Your task to perform on an android device: change the clock display to analog Image 0: 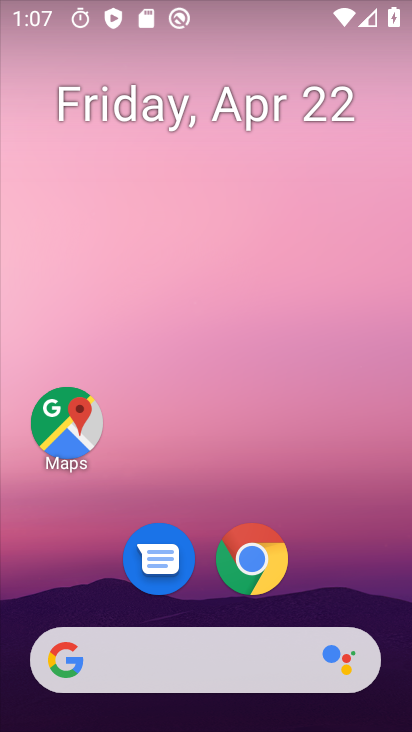
Step 0: drag from (357, 566) to (336, 267)
Your task to perform on an android device: change the clock display to analog Image 1: 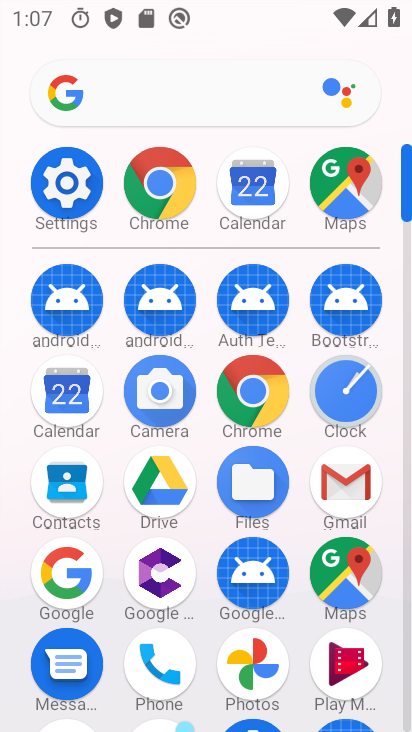
Step 1: click (356, 395)
Your task to perform on an android device: change the clock display to analog Image 2: 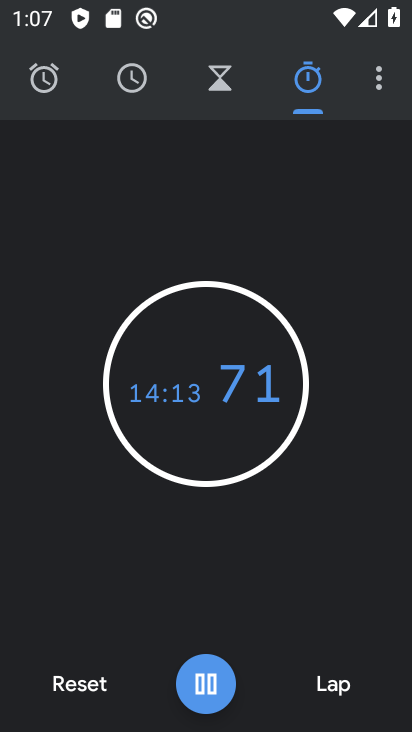
Step 2: click (385, 76)
Your task to perform on an android device: change the clock display to analog Image 3: 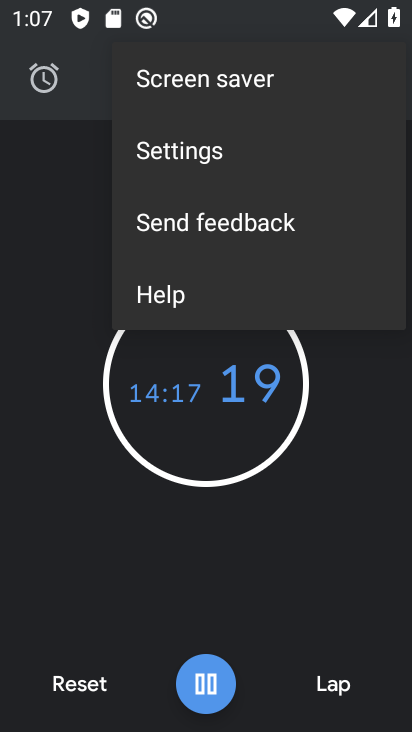
Step 3: click (231, 162)
Your task to perform on an android device: change the clock display to analog Image 4: 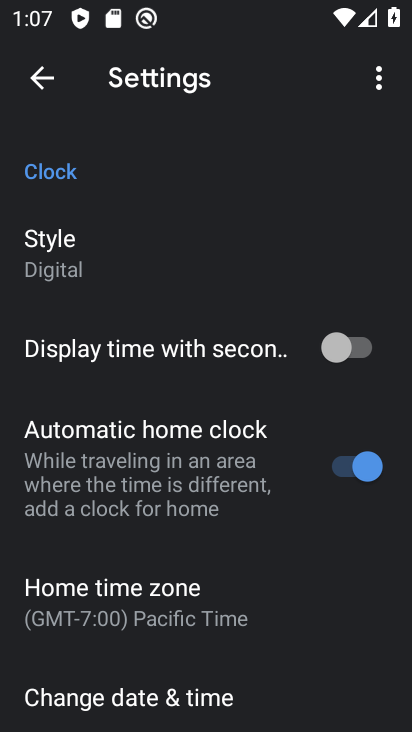
Step 4: drag from (289, 573) to (289, 399)
Your task to perform on an android device: change the clock display to analog Image 5: 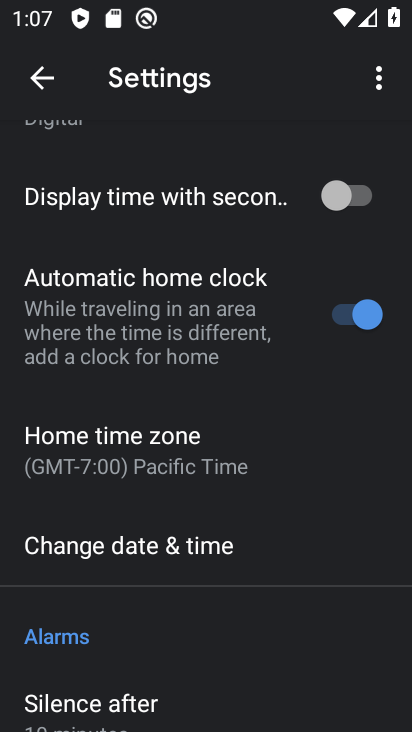
Step 5: drag from (308, 617) to (303, 436)
Your task to perform on an android device: change the clock display to analog Image 6: 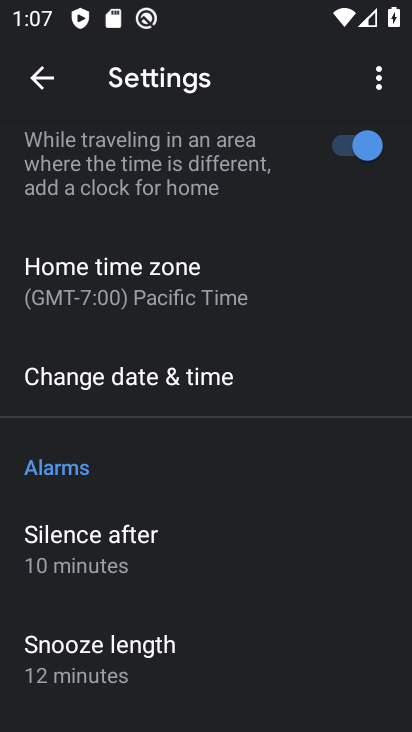
Step 6: drag from (304, 624) to (300, 475)
Your task to perform on an android device: change the clock display to analog Image 7: 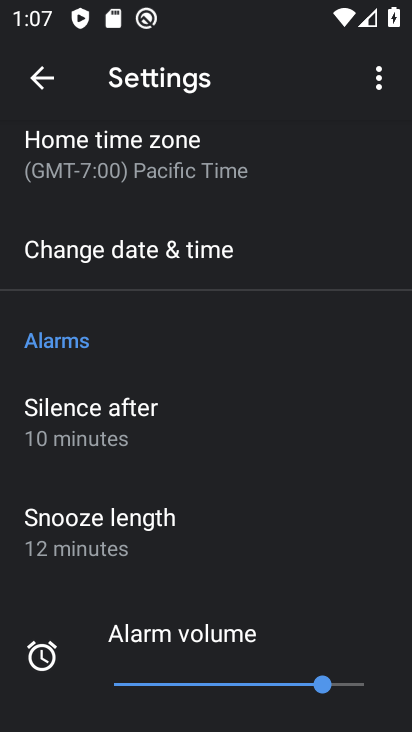
Step 7: drag from (300, 598) to (299, 436)
Your task to perform on an android device: change the clock display to analog Image 8: 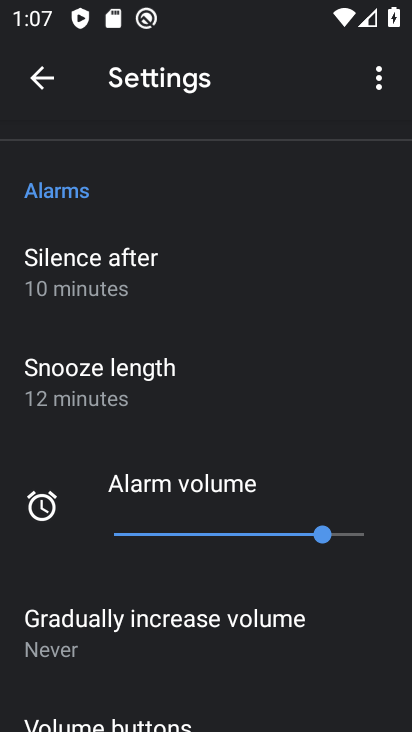
Step 8: drag from (348, 635) to (371, 461)
Your task to perform on an android device: change the clock display to analog Image 9: 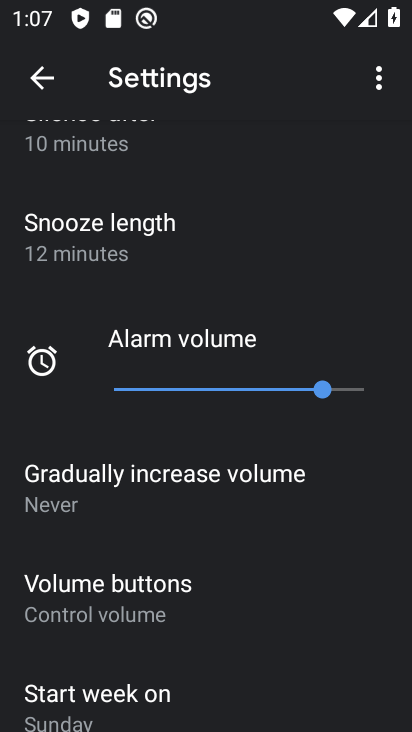
Step 9: drag from (347, 608) to (360, 462)
Your task to perform on an android device: change the clock display to analog Image 10: 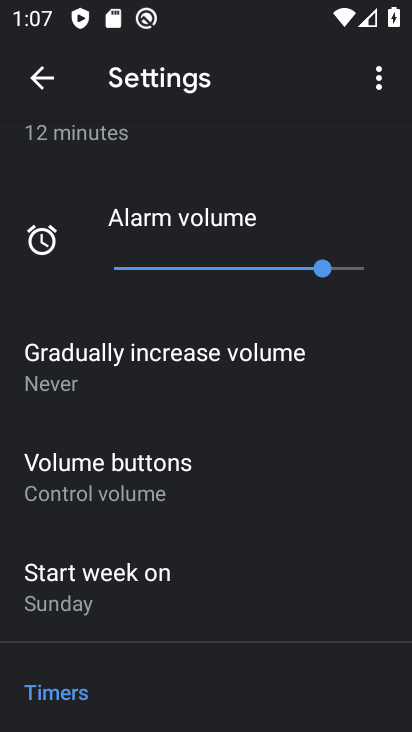
Step 10: drag from (343, 665) to (347, 528)
Your task to perform on an android device: change the clock display to analog Image 11: 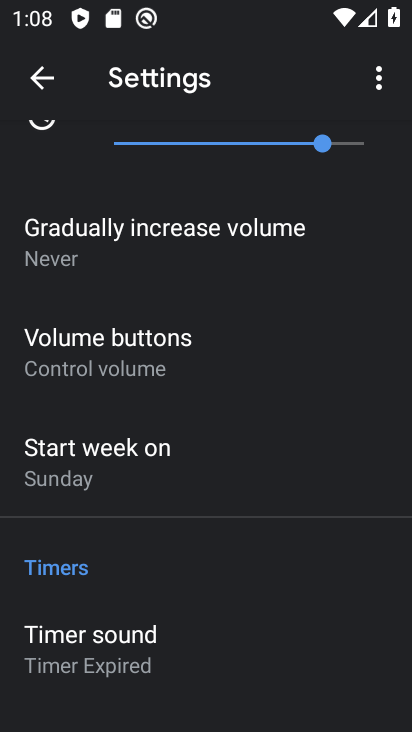
Step 11: drag from (347, 333) to (332, 475)
Your task to perform on an android device: change the clock display to analog Image 12: 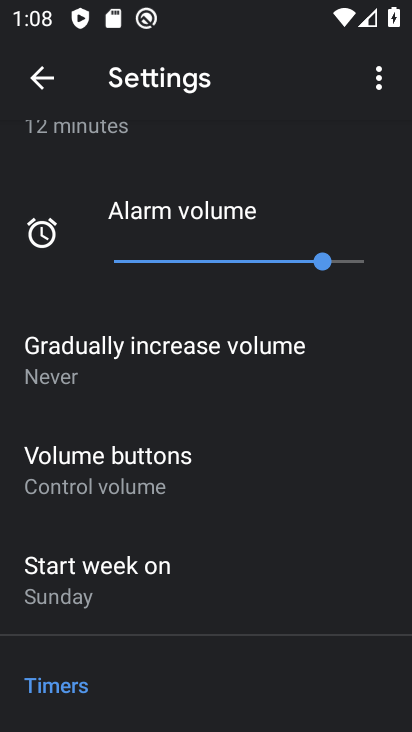
Step 12: drag from (360, 332) to (344, 470)
Your task to perform on an android device: change the clock display to analog Image 13: 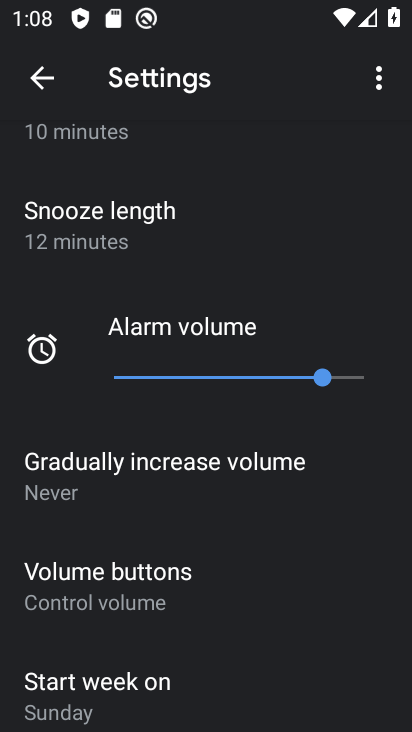
Step 13: drag from (354, 305) to (356, 480)
Your task to perform on an android device: change the clock display to analog Image 14: 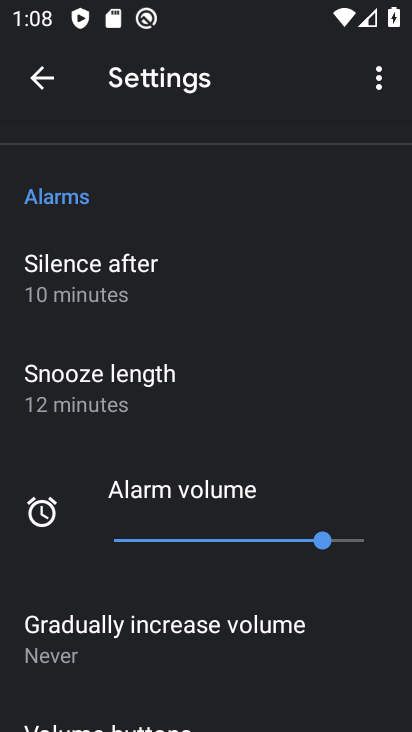
Step 14: drag from (353, 304) to (336, 457)
Your task to perform on an android device: change the clock display to analog Image 15: 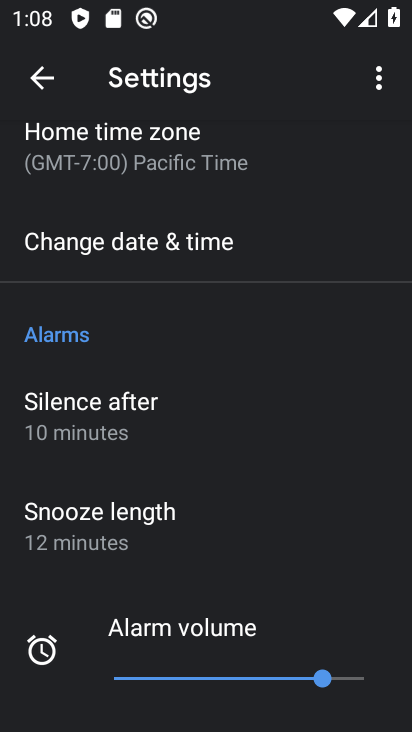
Step 15: drag from (325, 245) to (313, 455)
Your task to perform on an android device: change the clock display to analog Image 16: 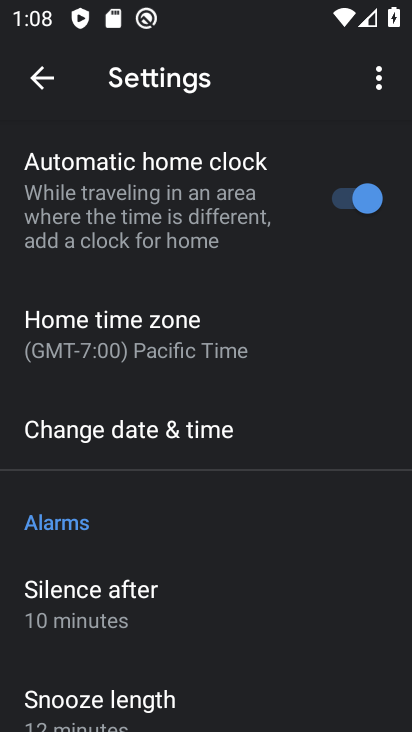
Step 16: drag from (297, 210) to (281, 516)
Your task to perform on an android device: change the clock display to analog Image 17: 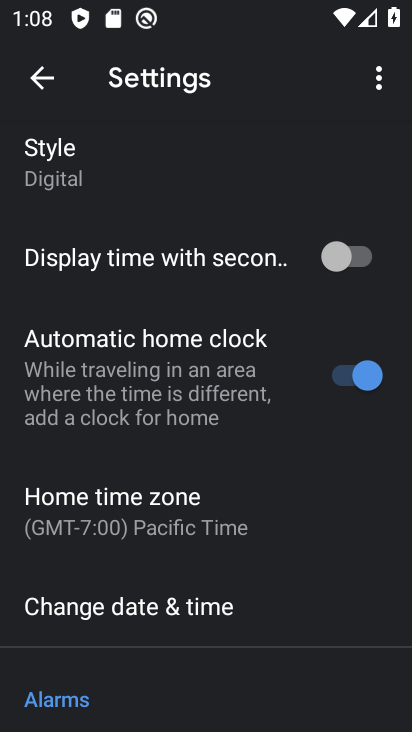
Step 17: click (63, 166)
Your task to perform on an android device: change the clock display to analog Image 18: 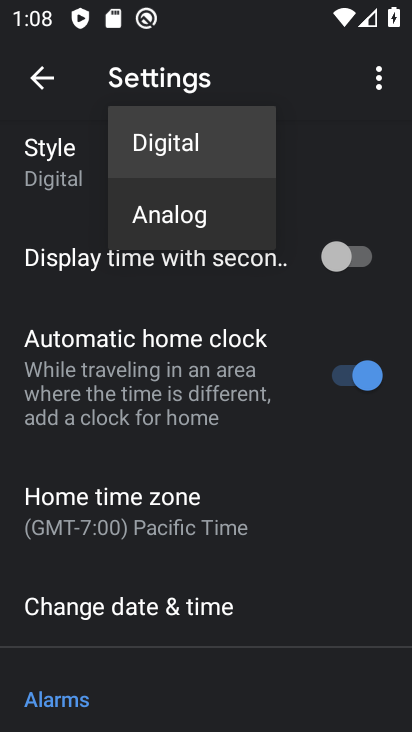
Step 18: click (145, 215)
Your task to perform on an android device: change the clock display to analog Image 19: 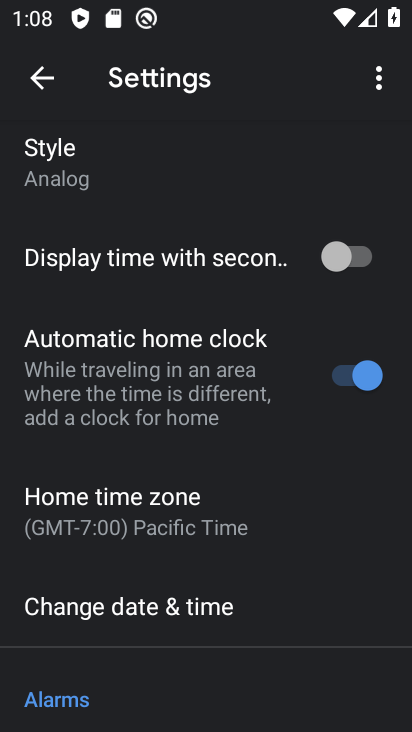
Step 19: task complete